Your task to perform on an android device: open app "Spotify" (install if not already installed) and go to login screen Image 0: 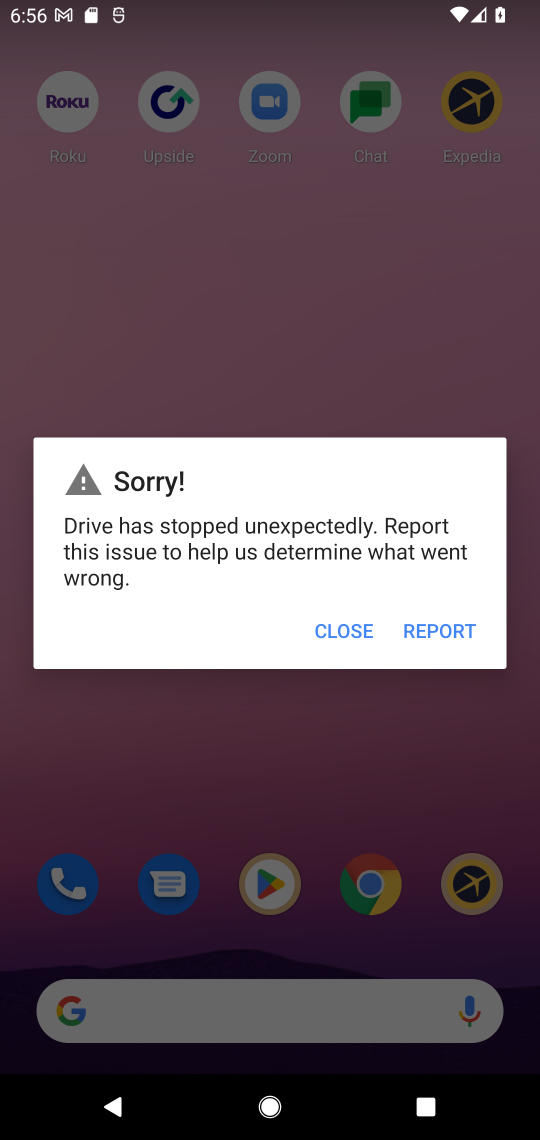
Step 0: press home button
Your task to perform on an android device: open app "Spotify" (install if not already installed) and go to login screen Image 1: 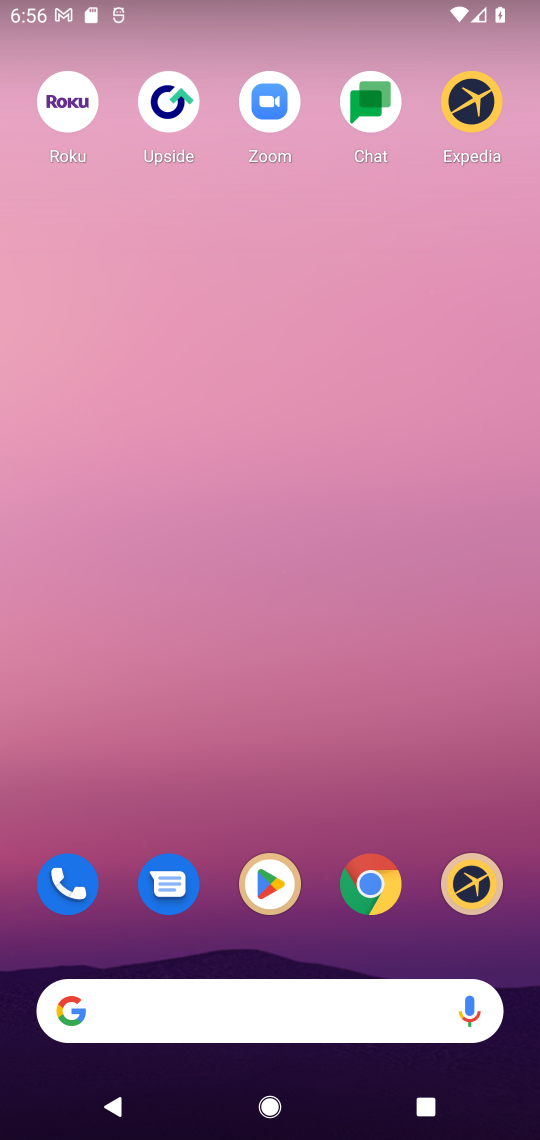
Step 1: drag from (279, 1001) to (409, 48)
Your task to perform on an android device: open app "Spotify" (install if not already installed) and go to login screen Image 2: 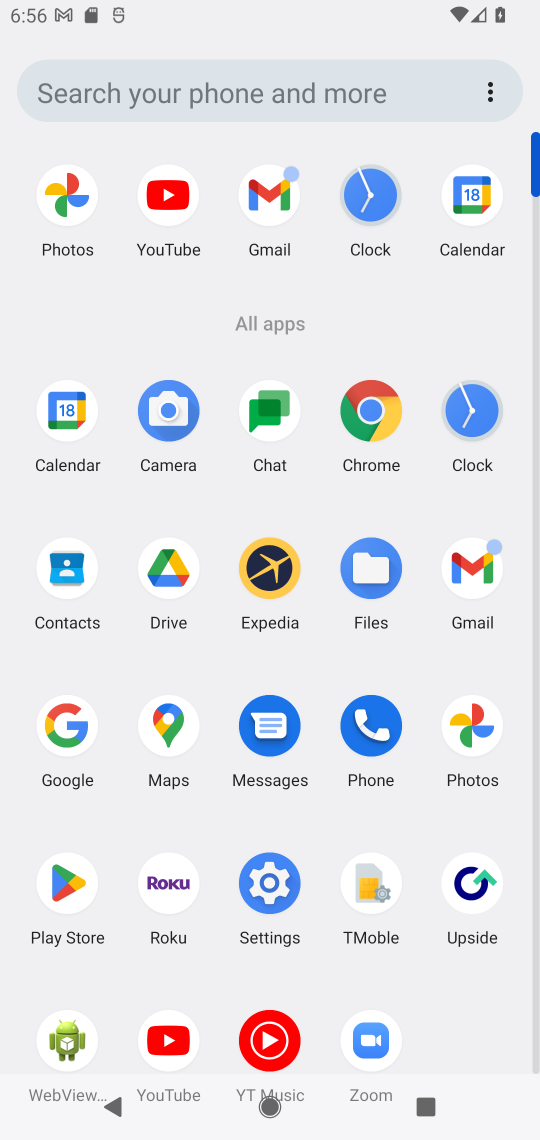
Step 2: click (68, 880)
Your task to perform on an android device: open app "Spotify" (install if not already installed) and go to login screen Image 3: 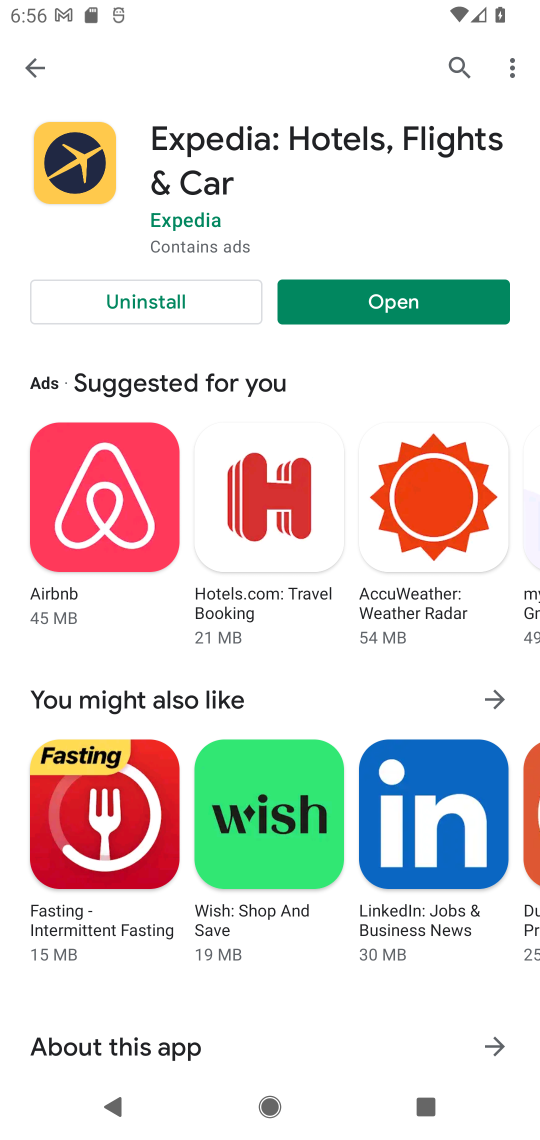
Step 3: press back button
Your task to perform on an android device: open app "Spotify" (install if not already installed) and go to login screen Image 4: 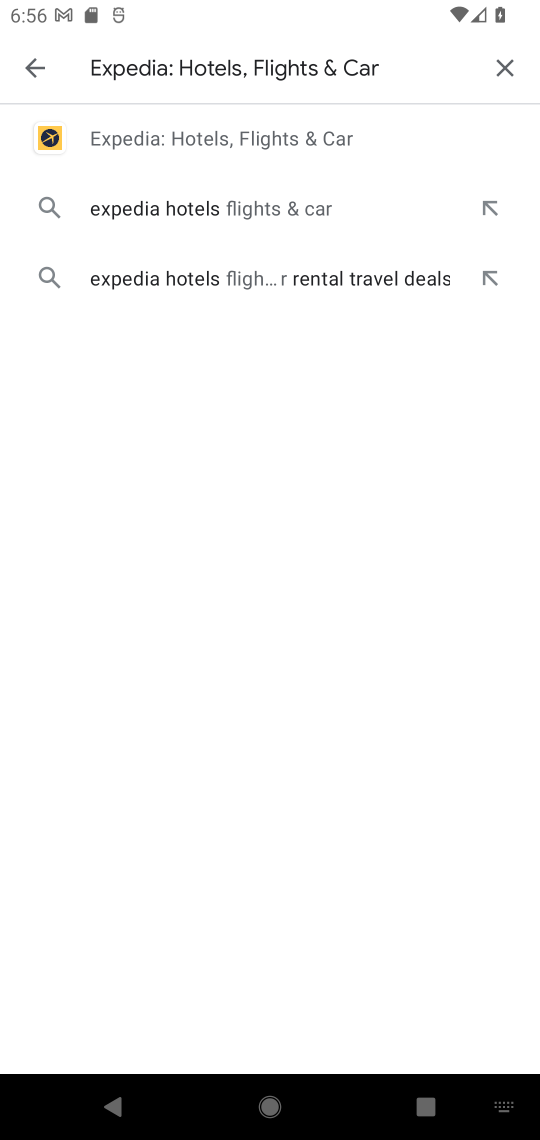
Step 4: press back button
Your task to perform on an android device: open app "Spotify" (install if not already installed) and go to login screen Image 5: 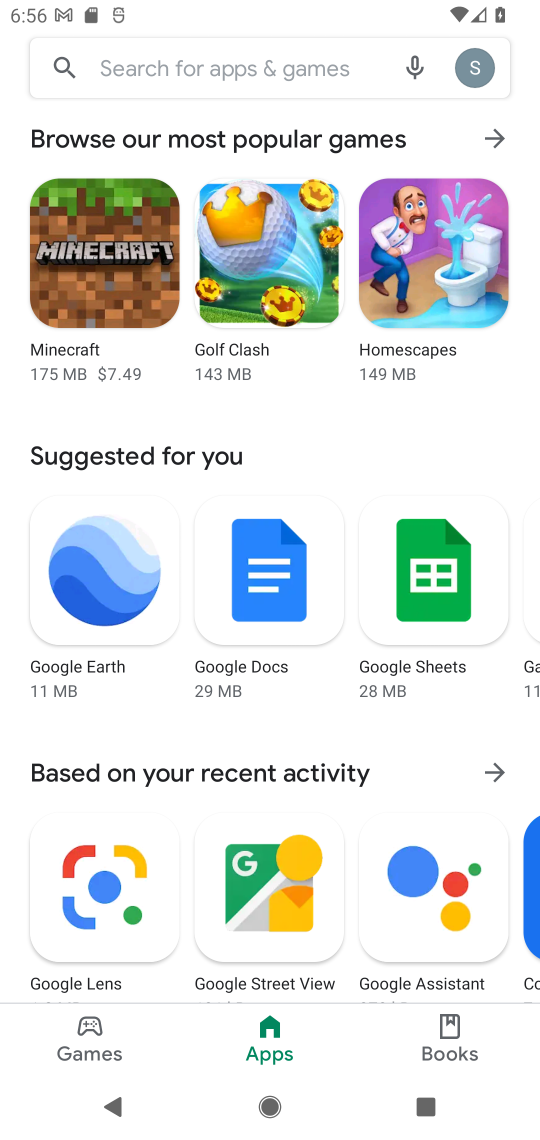
Step 5: click (294, 61)
Your task to perform on an android device: open app "Spotify" (install if not already installed) and go to login screen Image 6: 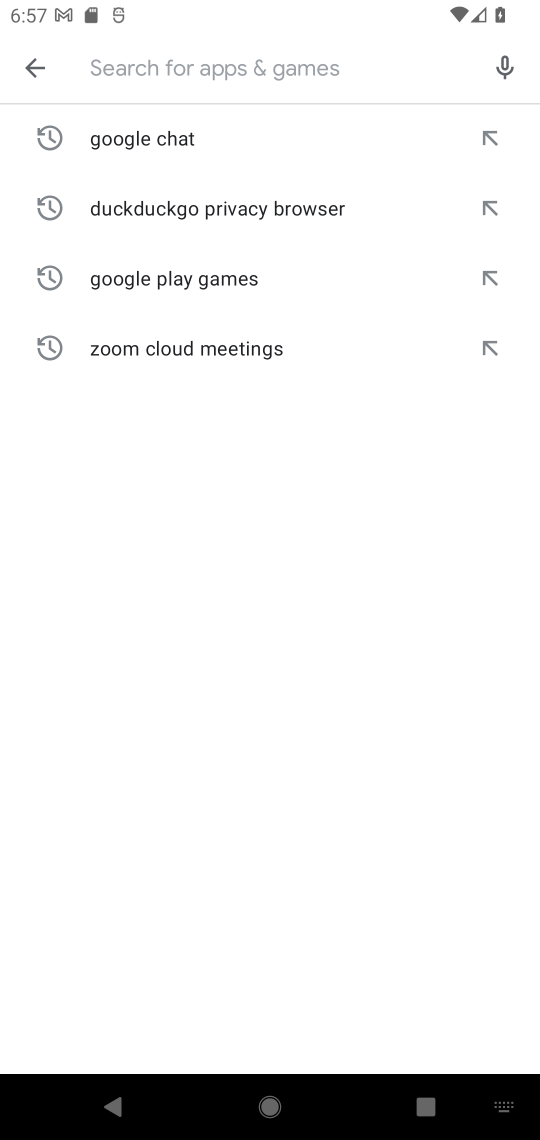
Step 6: type "Spotify"
Your task to perform on an android device: open app "Spotify" (install if not already installed) and go to login screen Image 7: 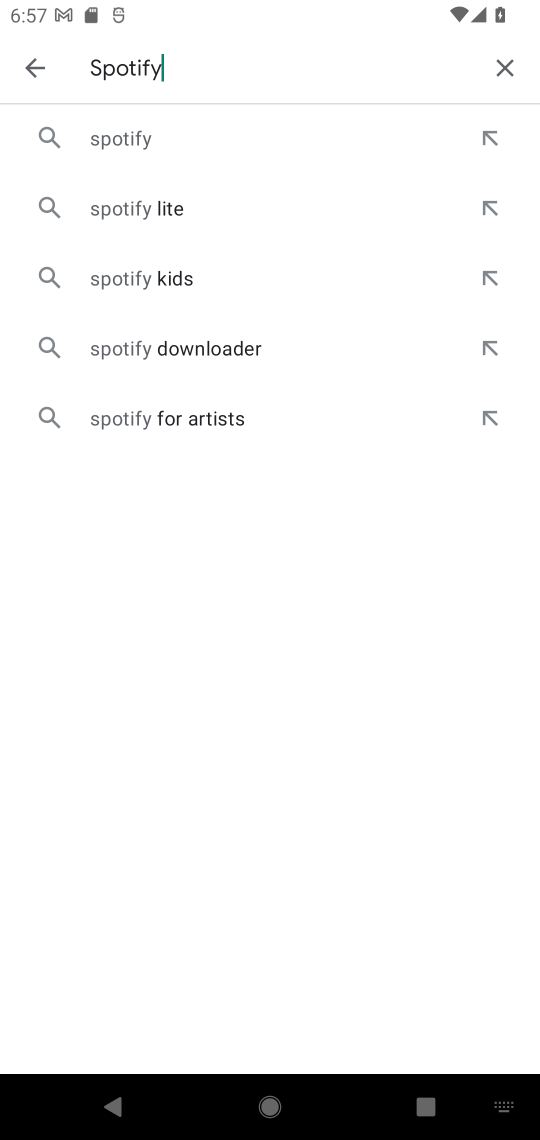
Step 7: click (133, 144)
Your task to perform on an android device: open app "Spotify" (install if not already installed) and go to login screen Image 8: 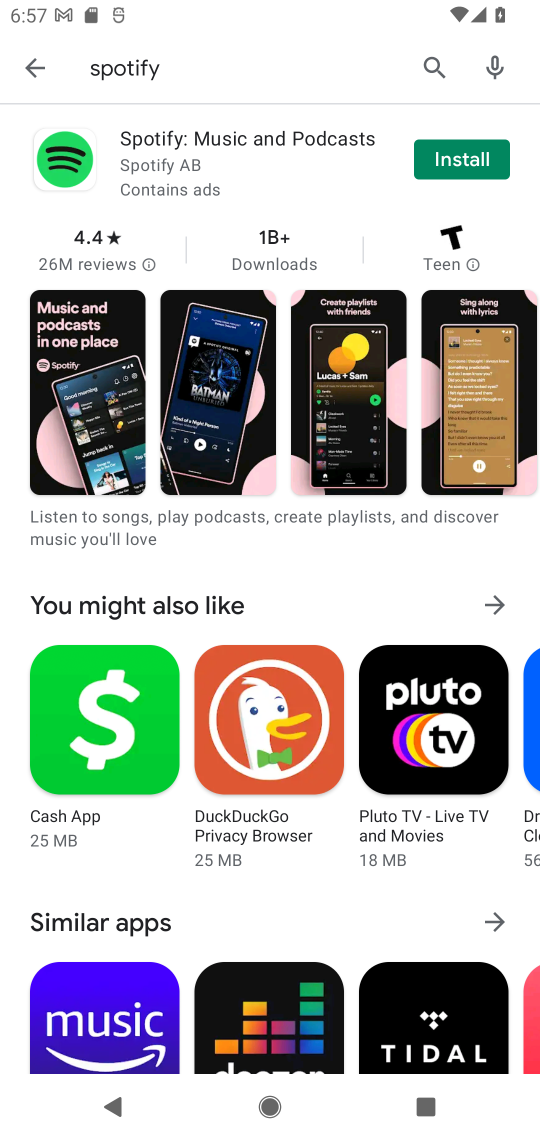
Step 8: click (460, 160)
Your task to perform on an android device: open app "Spotify" (install if not already installed) and go to login screen Image 9: 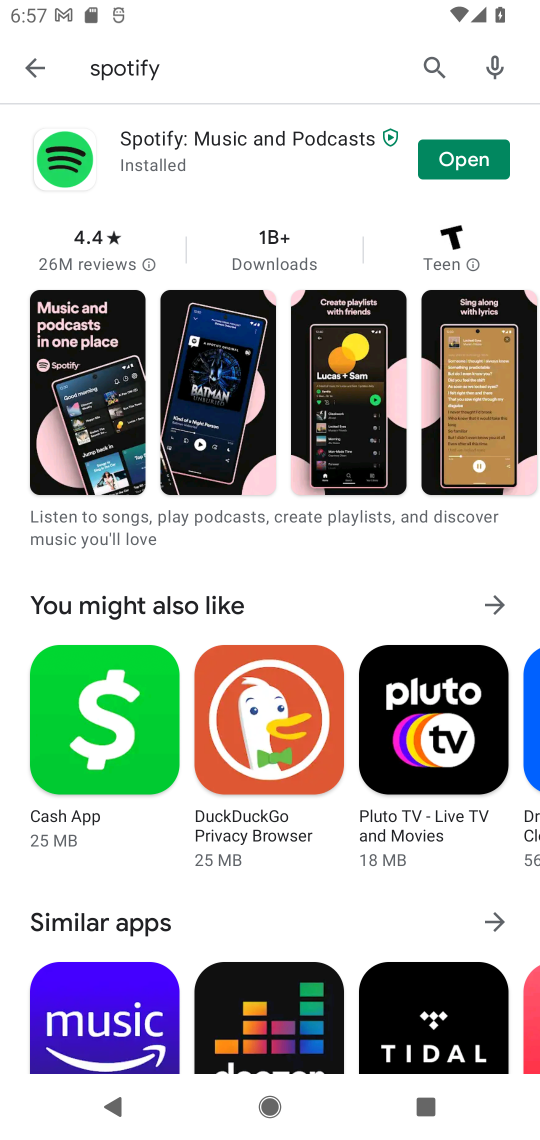
Step 9: click (460, 160)
Your task to perform on an android device: open app "Spotify" (install if not already installed) and go to login screen Image 10: 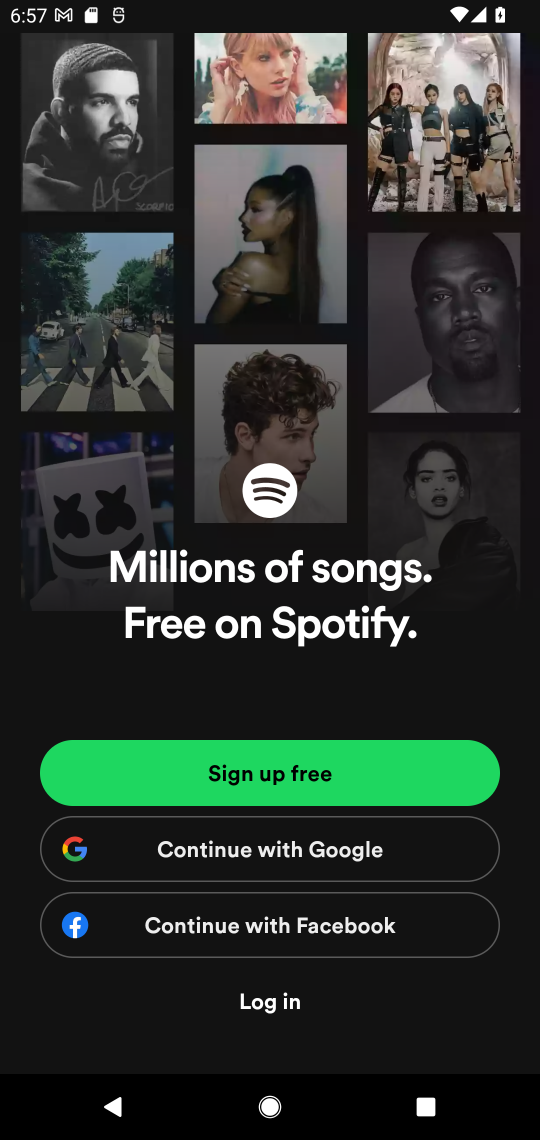
Step 10: click (273, 1002)
Your task to perform on an android device: open app "Spotify" (install if not already installed) and go to login screen Image 11: 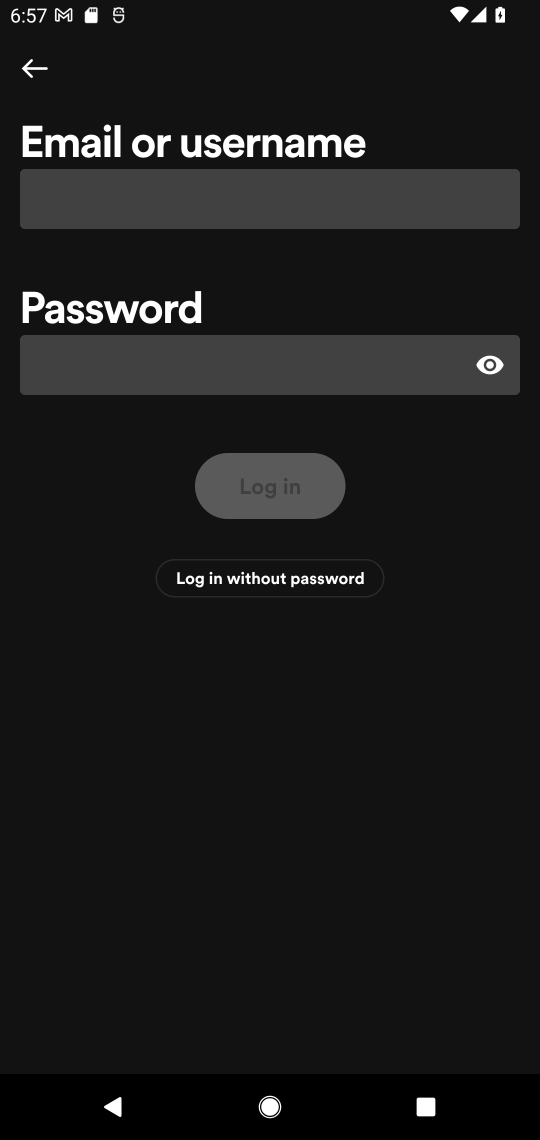
Step 11: task complete